Your task to perform on an android device: Open Chrome and go to settings Image 0: 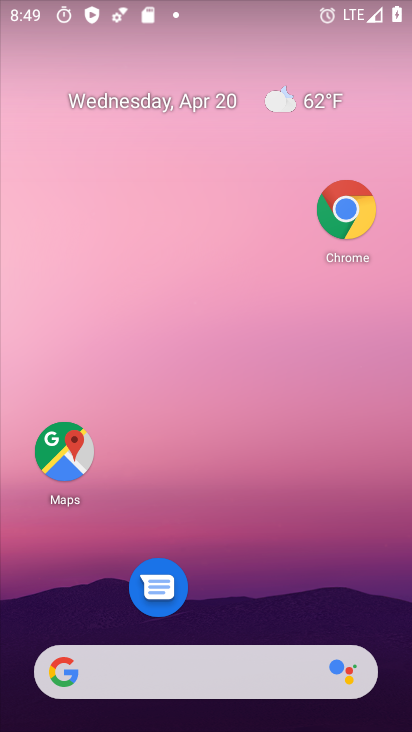
Step 0: click (349, 212)
Your task to perform on an android device: Open Chrome and go to settings Image 1: 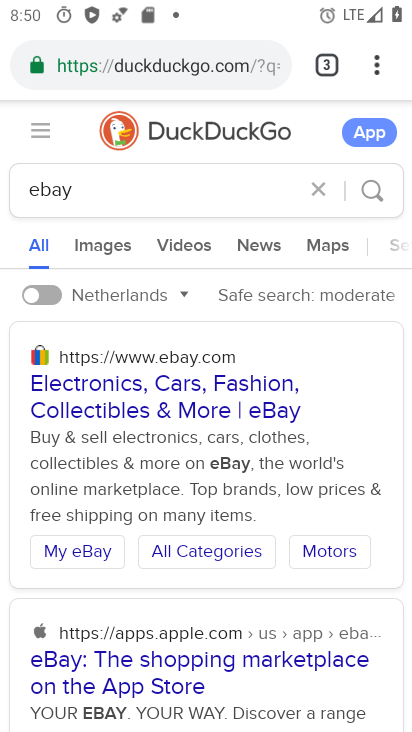
Step 1: click (380, 60)
Your task to perform on an android device: Open Chrome and go to settings Image 2: 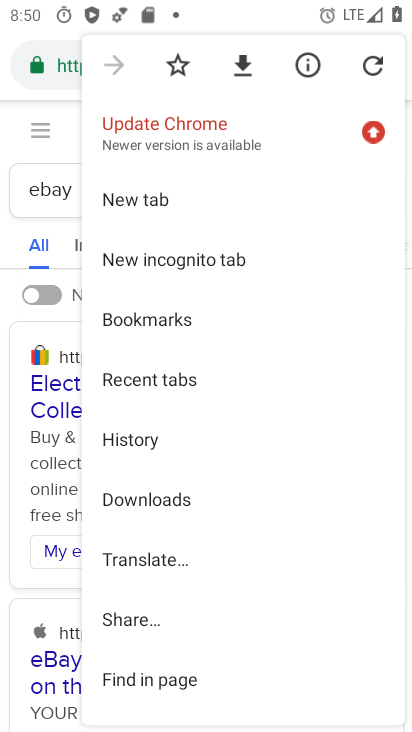
Step 2: drag from (205, 380) to (189, 106)
Your task to perform on an android device: Open Chrome and go to settings Image 3: 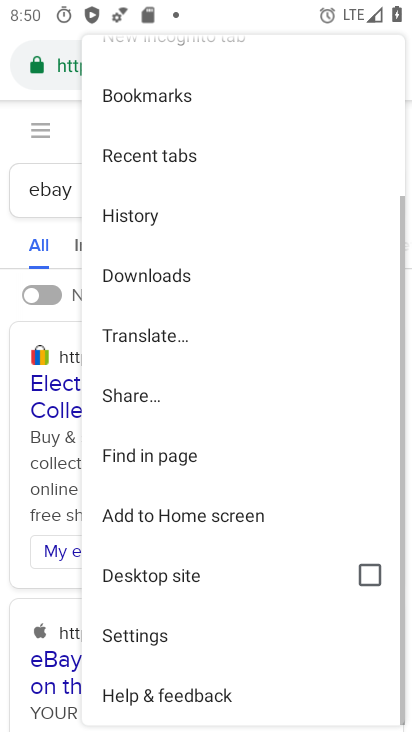
Step 3: click (174, 641)
Your task to perform on an android device: Open Chrome and go to settings Image 4: 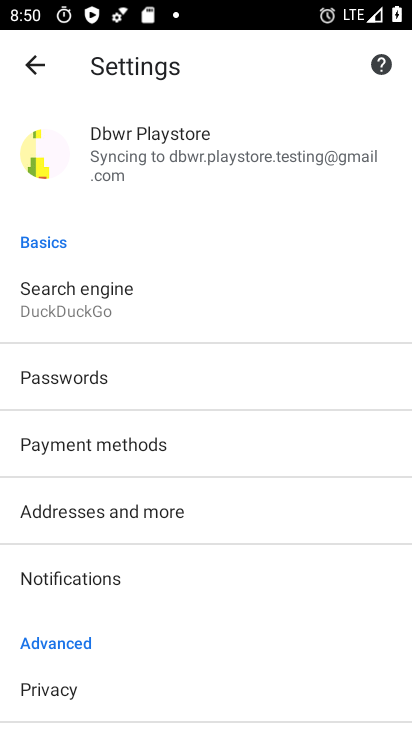
Step 4: task complete